Your task to perform on an android device: open chrome and create a bookmark for the current page Image 0: 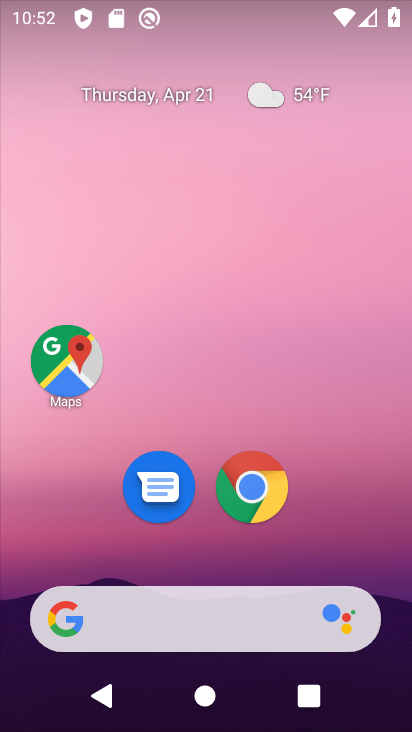
Step 0: drag from (359, 512) to (329, 89)
Your task to perform on an android device: open chrome and create a bookmark for the current page Image 1: 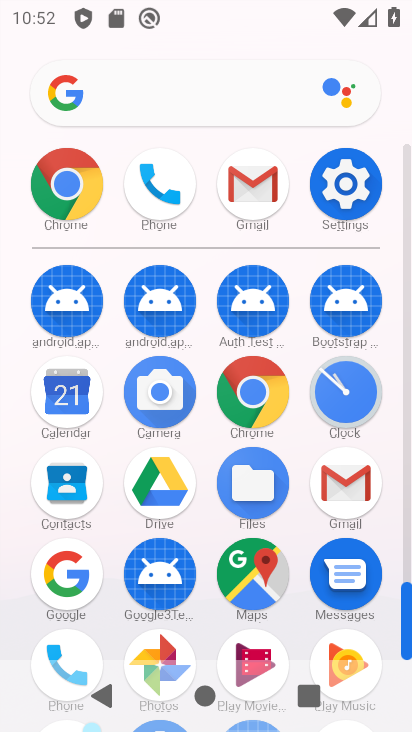
Step 1: click (265, 381)
Your task to perform on an android device: open chrome and create a bookmark for the current page Image 2: 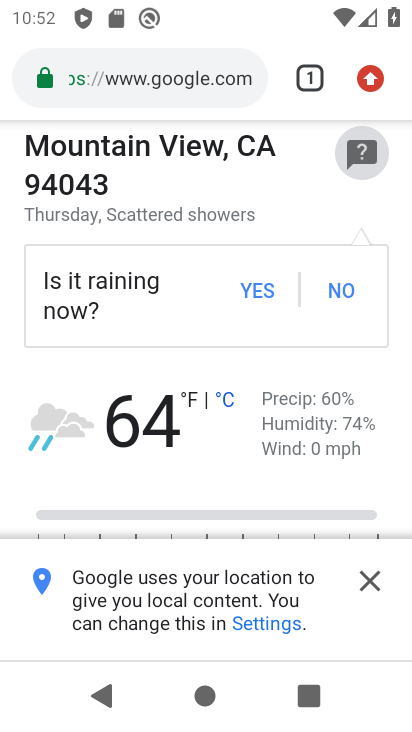
Step 2: task complete